Your task to perform on an android device: turn off translation in the chrome app Image 0: 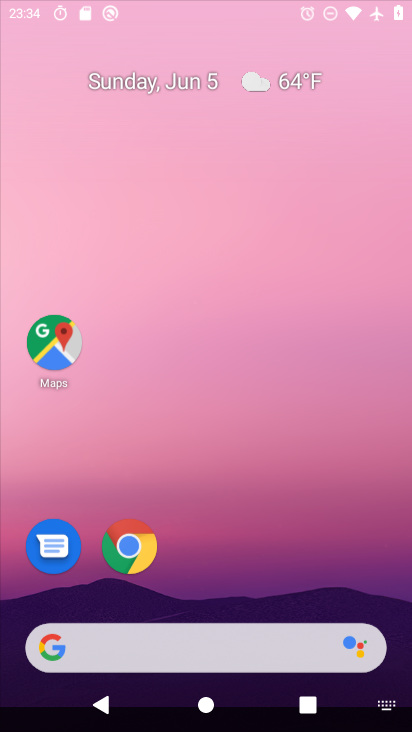
Step 0: click (151, 113)
Your task to perform on an android device: turn off translation in the chrome app Image 1: 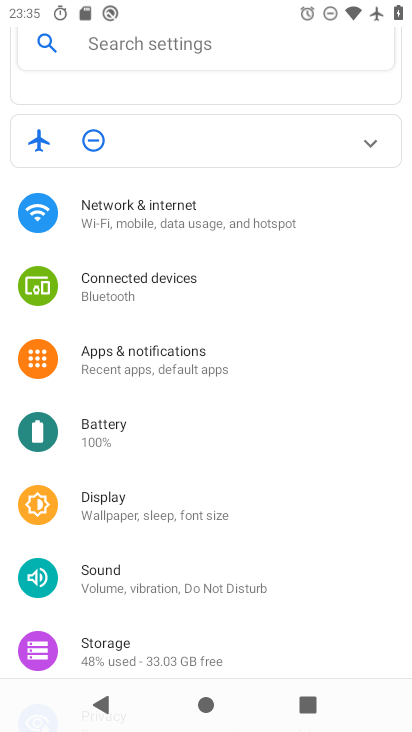
Step 1: press home button
Your task to perform on an android device: turn off translation in the chrome app Image 2: 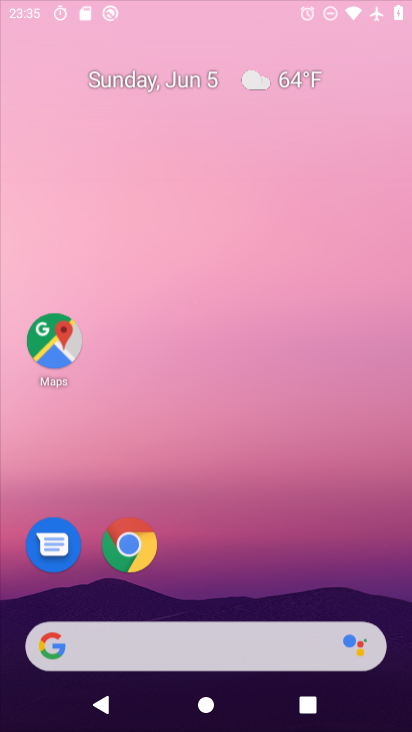
Step 2: drag from (191, 597) to (331, 8)
Your task to perform on an android device: turn off translation in the chrome app Image 3: 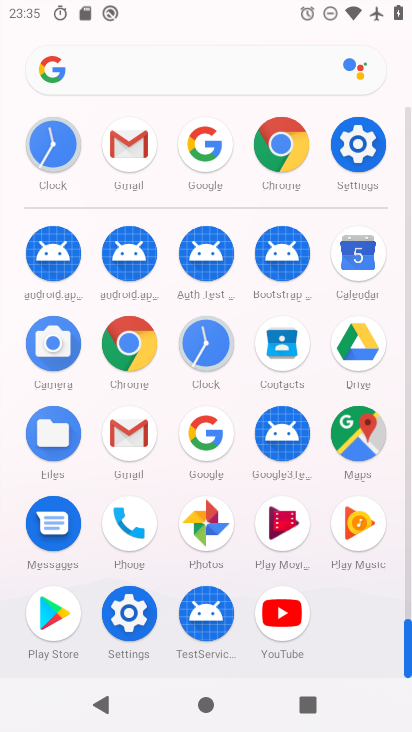
Step 3: click (274, 138)
Your task to perform on an android device: turn off translation in the chrome app Image 4: 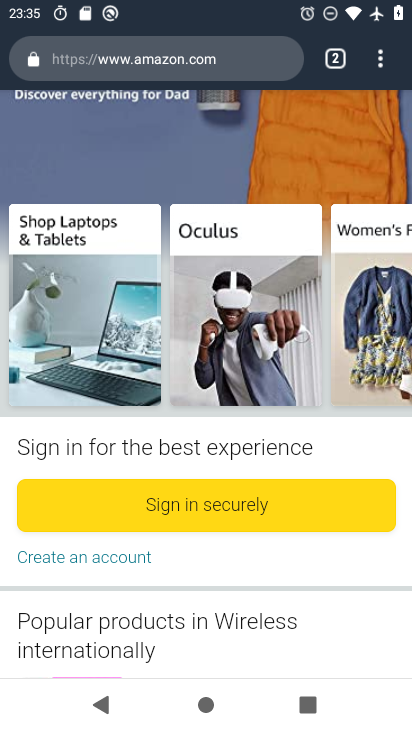
Step 4: click (376, 68)
Your task to perform on an android device: turn off translation in the chrome app Image 5: 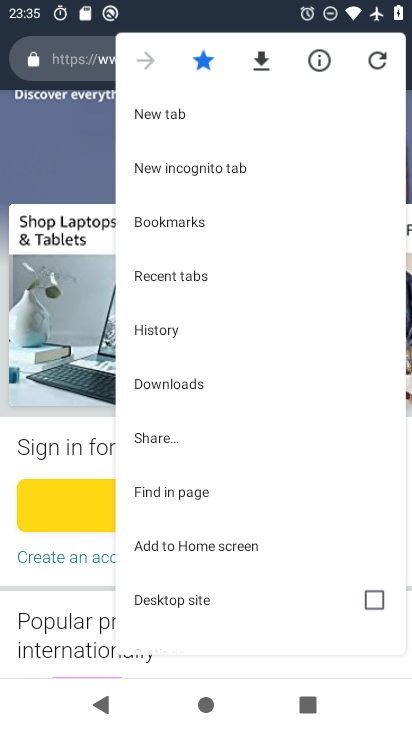
Step 5: drag from (176, 548) to (247, 143)
Your task to perform on an android device: turn off translation in the chrome app Image 6: 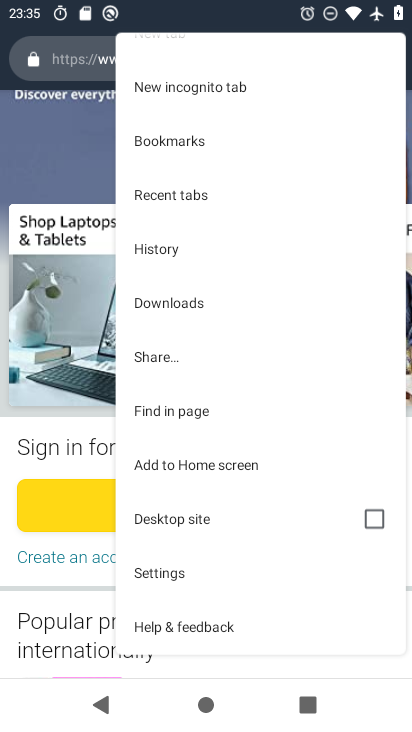
Step 6: click (174, 568)
Your task to perform on an android device: turn off translation in the chrome app Image 7: 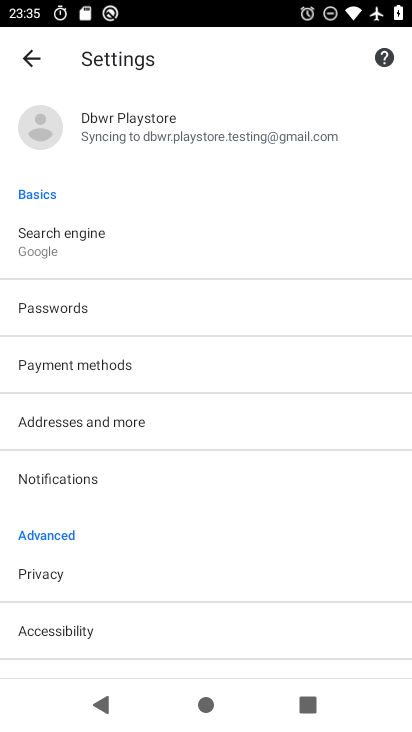
Step 7: drag from (312, 603) to (369, 88)
Your task to perform on an android device: turn off translation in the chrome app Image 8: 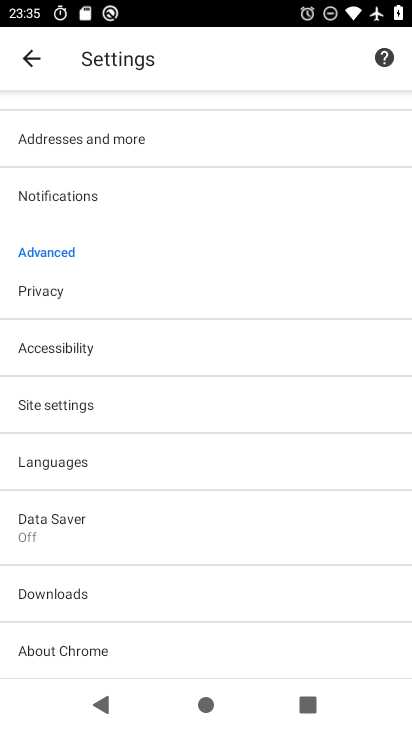
Step 8: click (93, 447)
Your task to perform on an android device: turn off translation in the chrome app Image 9: 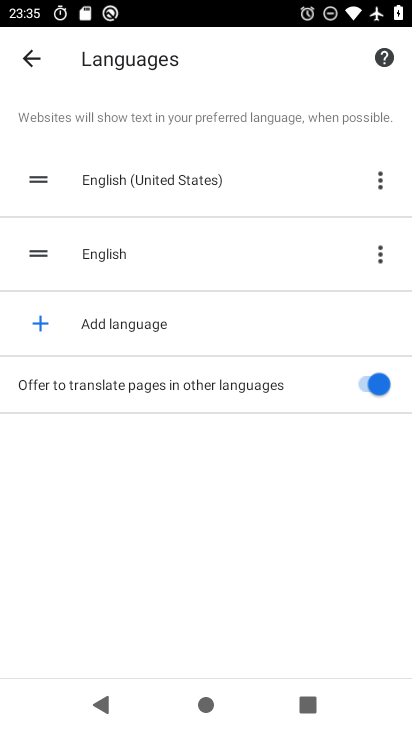
Step 9: click (375, 394)
Your task to perform on an android device: turn off translation in the chrome app Image 10: 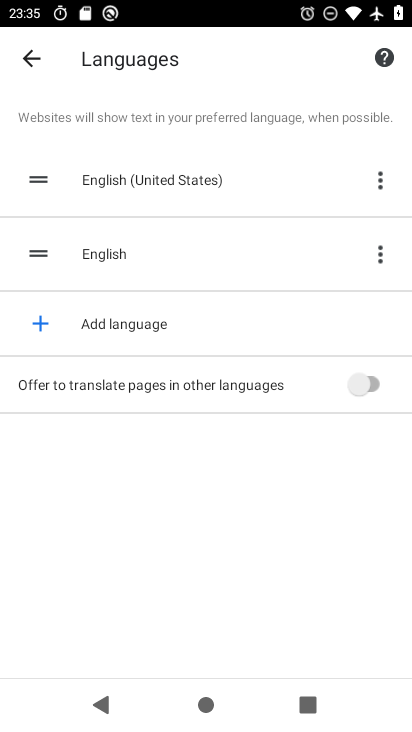
Step 10: task complete